Your task to perform on an android device: Open Yahoo.com Image 0: 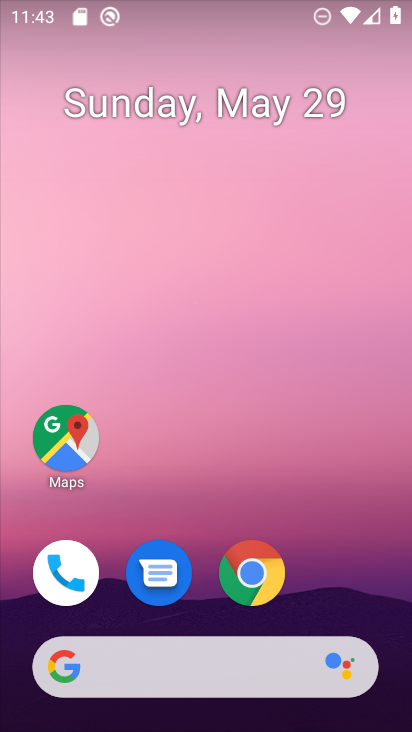
Step 0: click (244, 677)
Your task to perform on an android device: Open Yahoo.com Image 1: 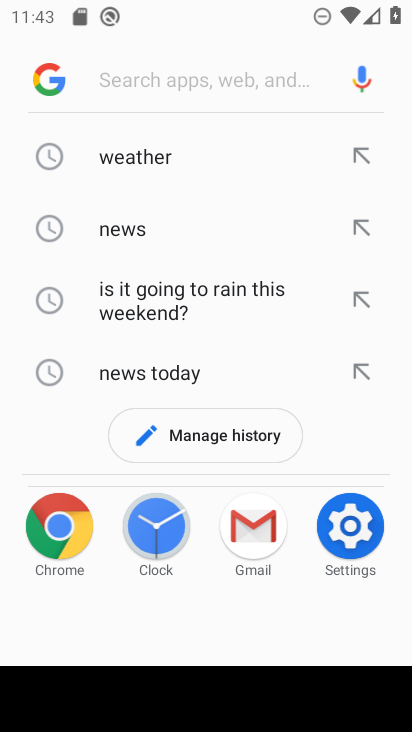
Step 1: type "Yahoo.com"
Your task to perform on an android device: Open Yahoo.com Image 2: 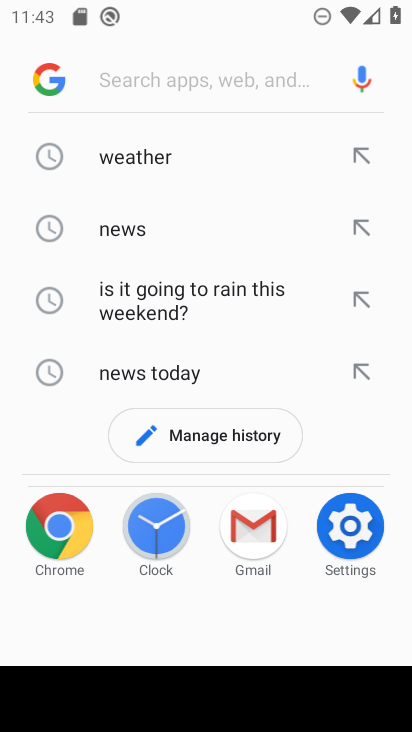
Step 2: click (164, 86)
Your task to perform on an android device: Open Yahoo.com Image 3: 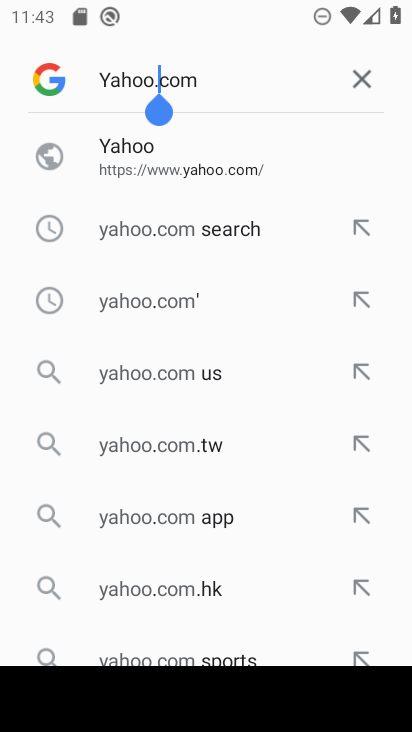
Step 3: click (183, 161)
Your task to perform on an android device: Open Yahoo.com Image 4: 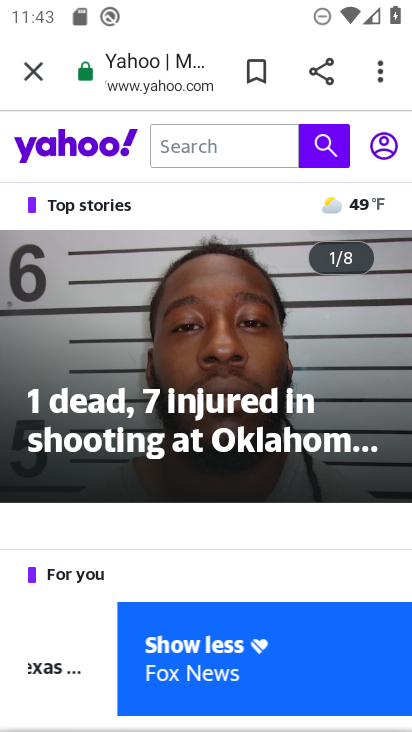
Step 4: task complete